Your task to perform on an android device: Open the Play Movies app and select the watchlist tab. Image 0: 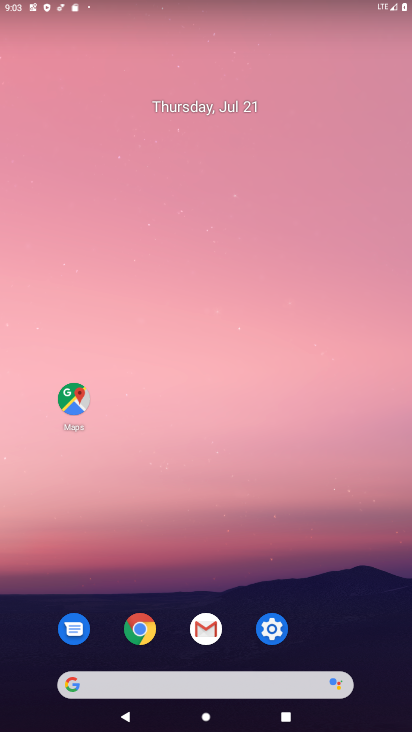
Step 0: press home button
Your task to perform on an android device: Open the Play Movies app and select the watchlist tab. Image 1: 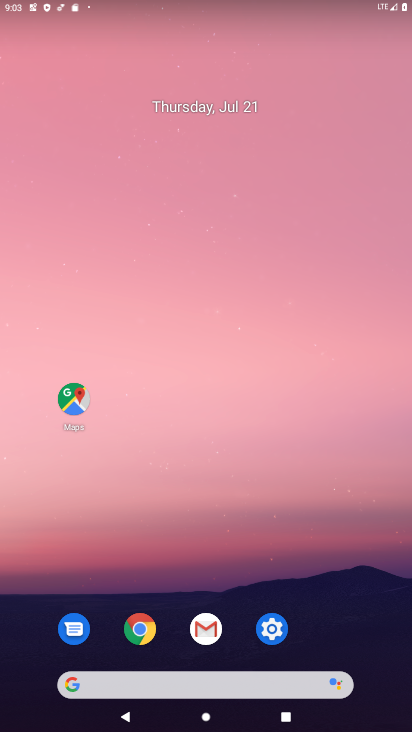
Step 1: drag from (317, 520) to (292, 117)
Your task to perform on an android device: Open the Play Movies app and select the watchlist tab. Image 2: 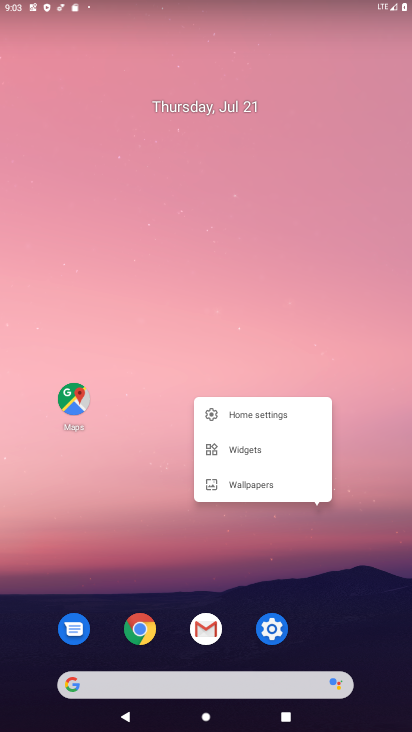
Step 2: click (276, 179)
Your task to perform on an android device: Open the Play Movies app and select the watchlist tab. Image 3: 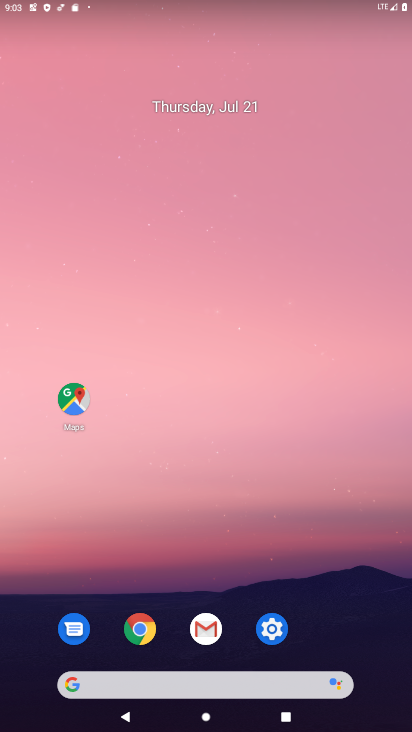
Step 3: drag from (237, 688) to (256, 170)
Your task to perform on an android device: Open the Play Movies app and select the watchlist tab. Image 4: 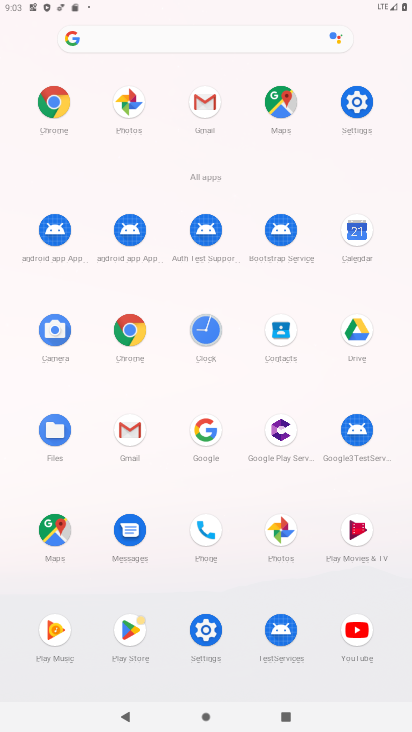
Step 4: click (359, 529)
Your task to perform on an android device: Open the Play Movies app and select the watchlist tab. Image 5: 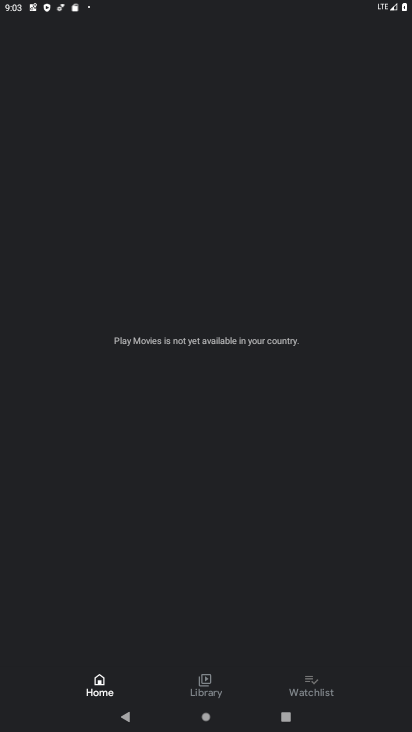
Step 5: click (308, 687)
Your task to perform on an android device: Open the Play Movies app and select the watchlist tab. Image 6: 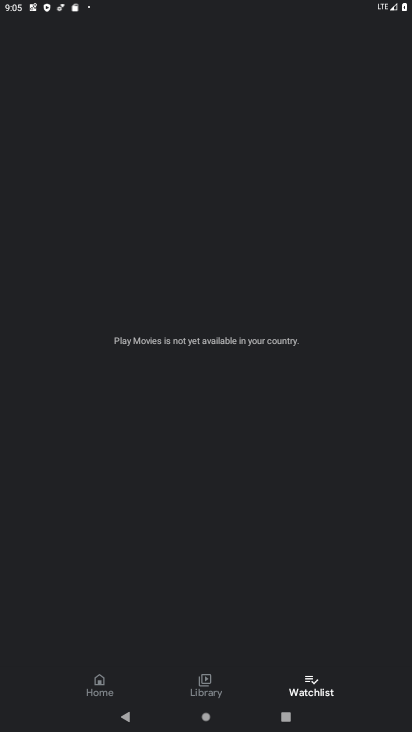
Step 6: task complete